Your task to perform on an android device: Open the calendar and show me this week's events? Image 0: 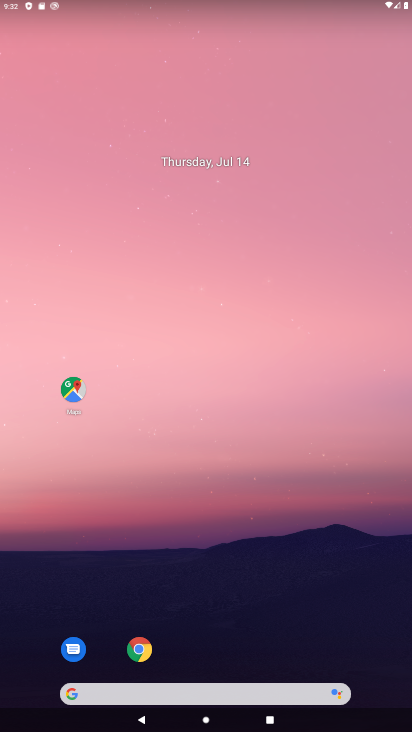
Step 0: drag from (197, 645) to (206, 44)
Your task to perform on an android device: Open the calendar and show me this week's events? Image 1: 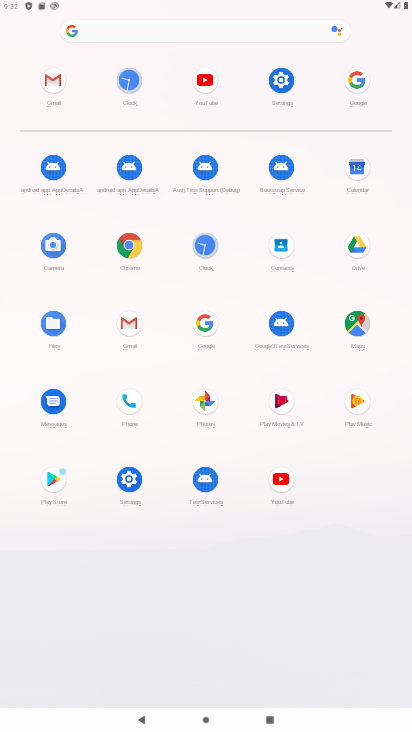
Step 1: click (346, 170)
Your task to perform on an android device: Open the calendar and show me this week's events? Image 2: 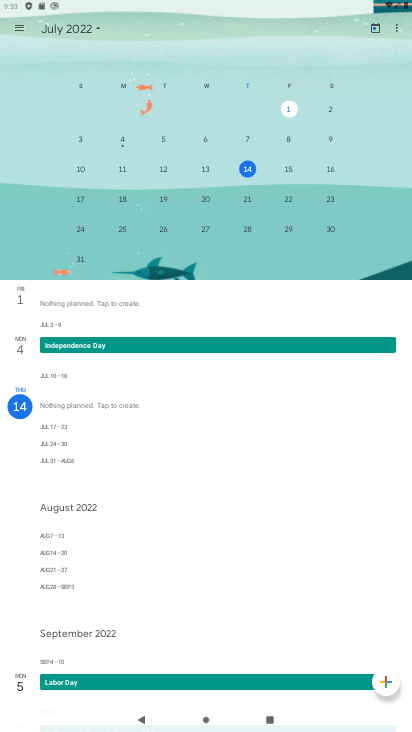
Step 2: task complete